Your task to perform on an android device: Search for Italian restaurants on Maps Image 0: 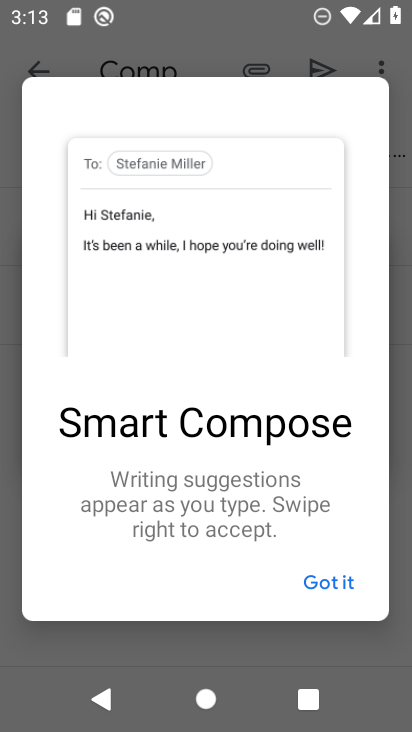
Step 0: press home button
Your task to perform on an android device: Search for Italian restaurants on Maps Image 1: 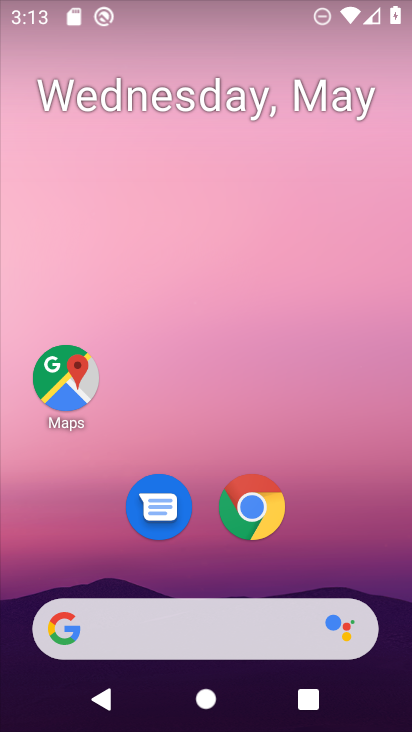
Step 1: click (73, 385)
Your task to perform on an android device: Search for Italian restaurants on Maps Image 2: 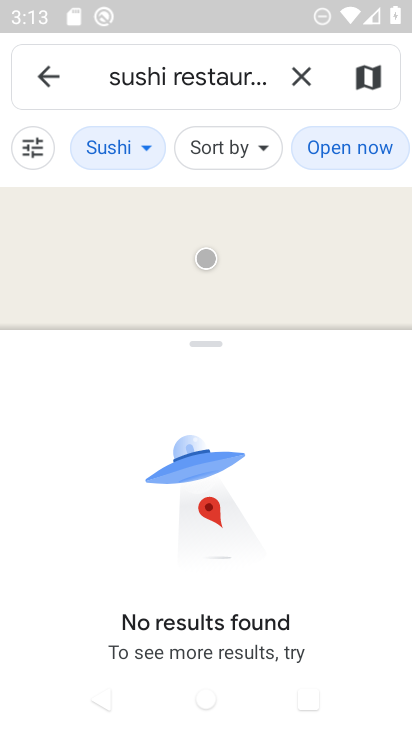
Step 2: click (152, 72)
Your task to perform on an android device: Search for Italian restaurants on Maps Image 3: 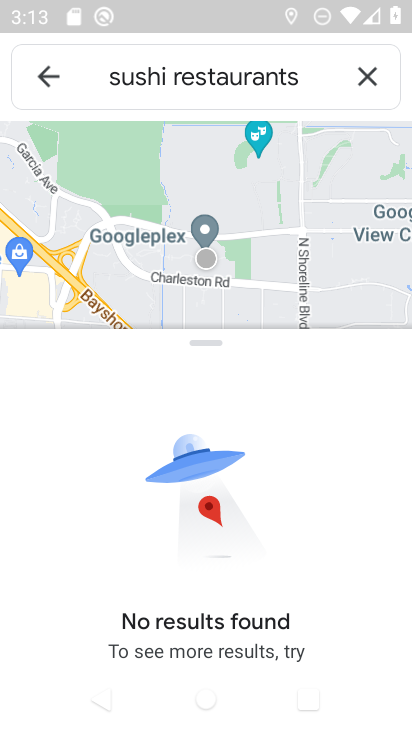
Step 3: click (134, 78)
Your task to perform on an android device: Search for Italian restaurants on Maps Image 4: 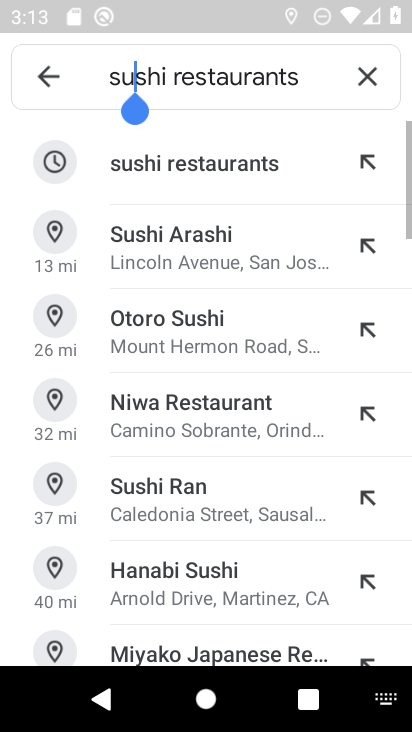
Step 4: click (133, 79)
Your task to perform on an android device: Search for Italian restaurants on Maps Image 5: 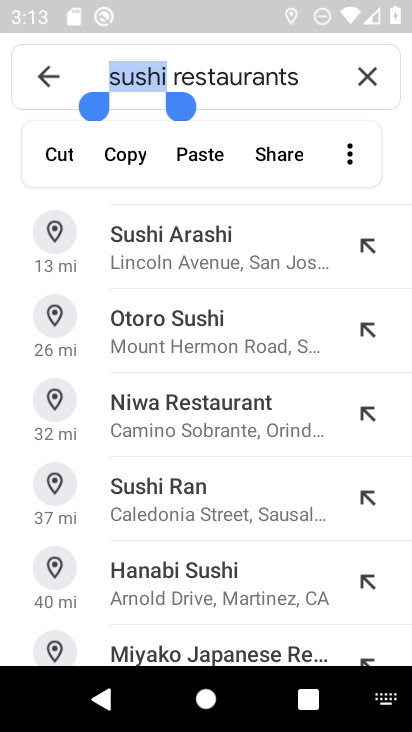
Step 5: type "italian"
Your task to perform on an android device: Search for Italian restaurants on Maps Image 6: 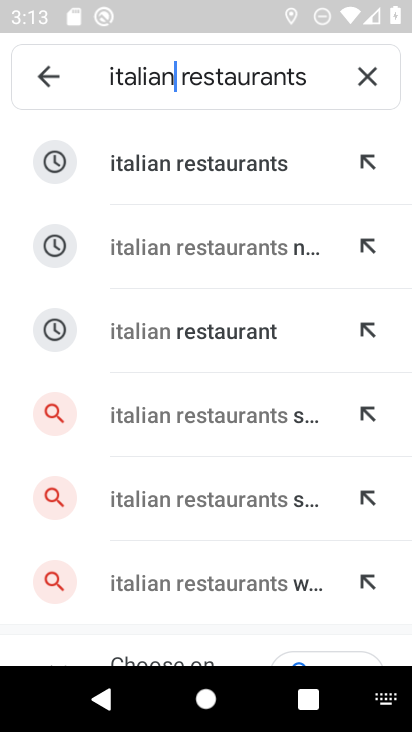
Step 6: click (174, 181)
Your task to perform on an android device: Search for Italian restaurants on Maps Image 7: 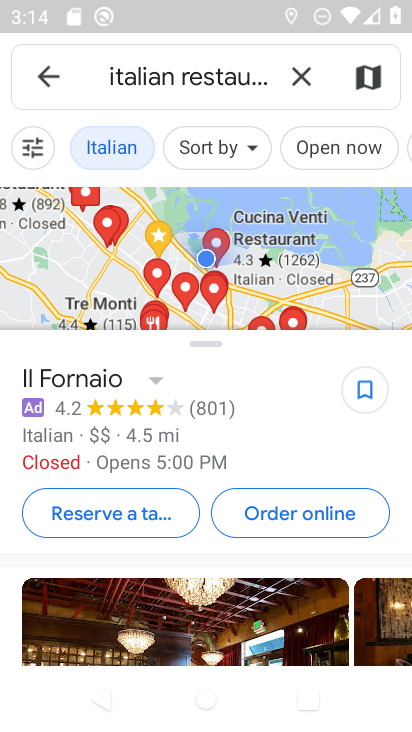
Step 7: task complete